Your task to perform on an android device: Search for seafood restaurants on Google Maps Image 0: 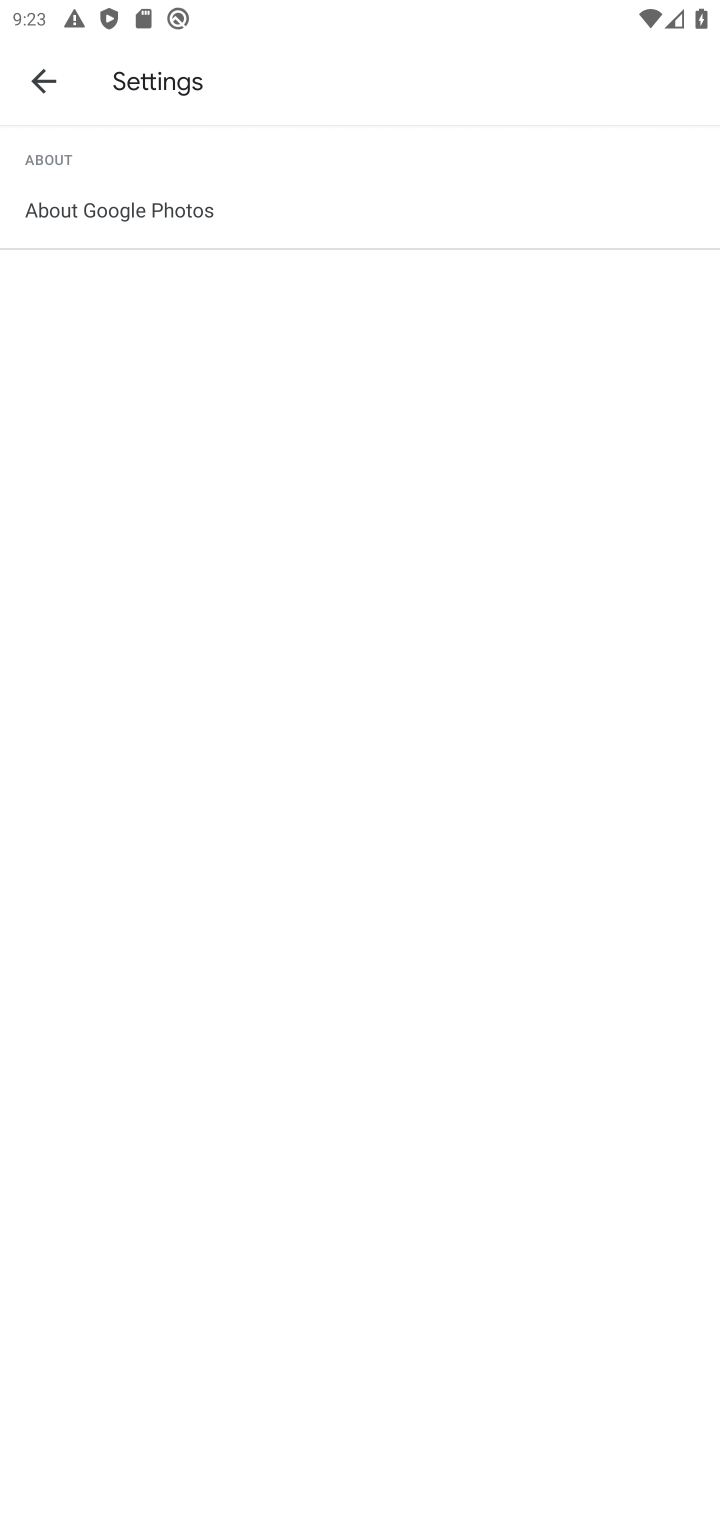
Step 0: press home button
Your task to perform on an android device: Search for seafood restaurants on Google Maps Image 1: 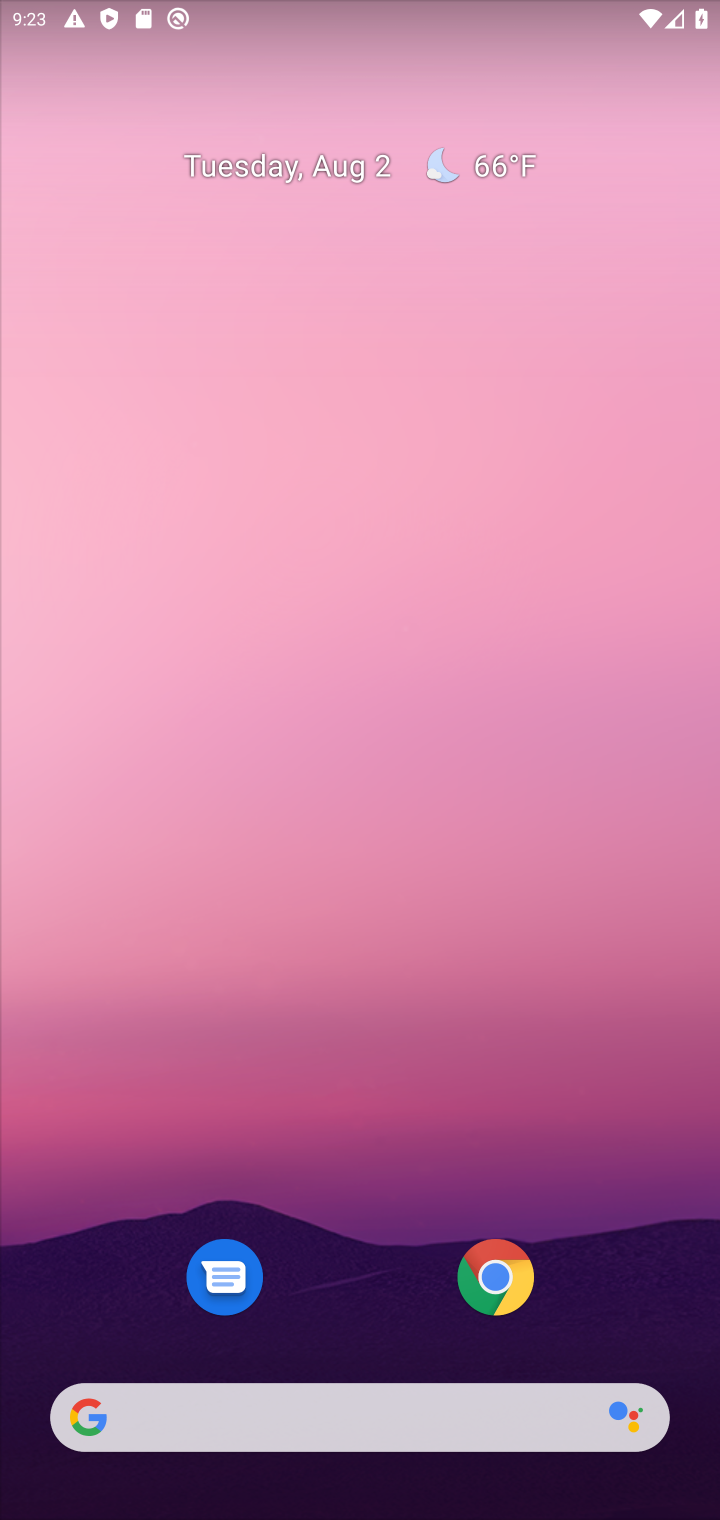
Step 1: drag from (421, 1097) to (565, 415)
Your task to perform on an android device: Search for seafood restaurants on Google Maps Image 2: 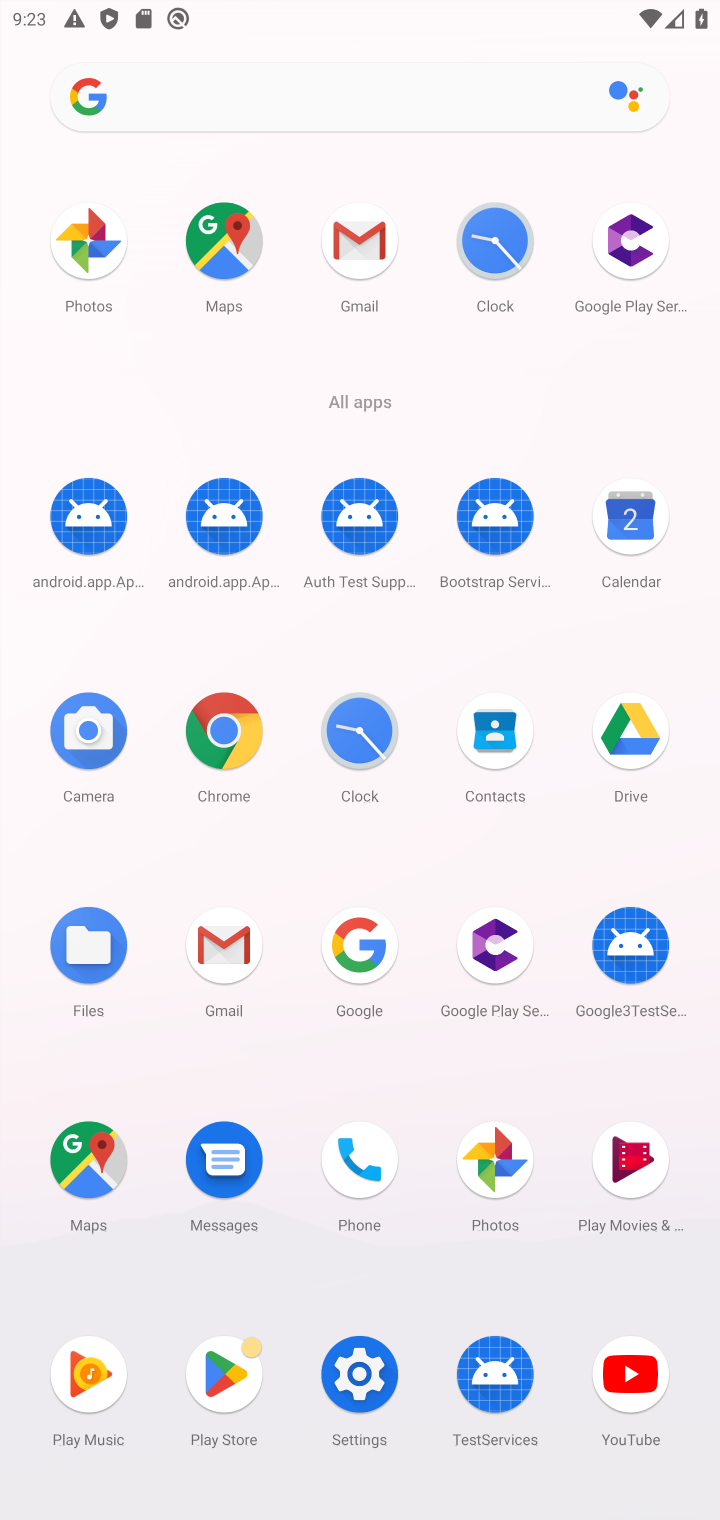
Step 2: click (215, 241)
Your task to perform on an android device: Search for seafood restaurants on Google Maps Image 3: 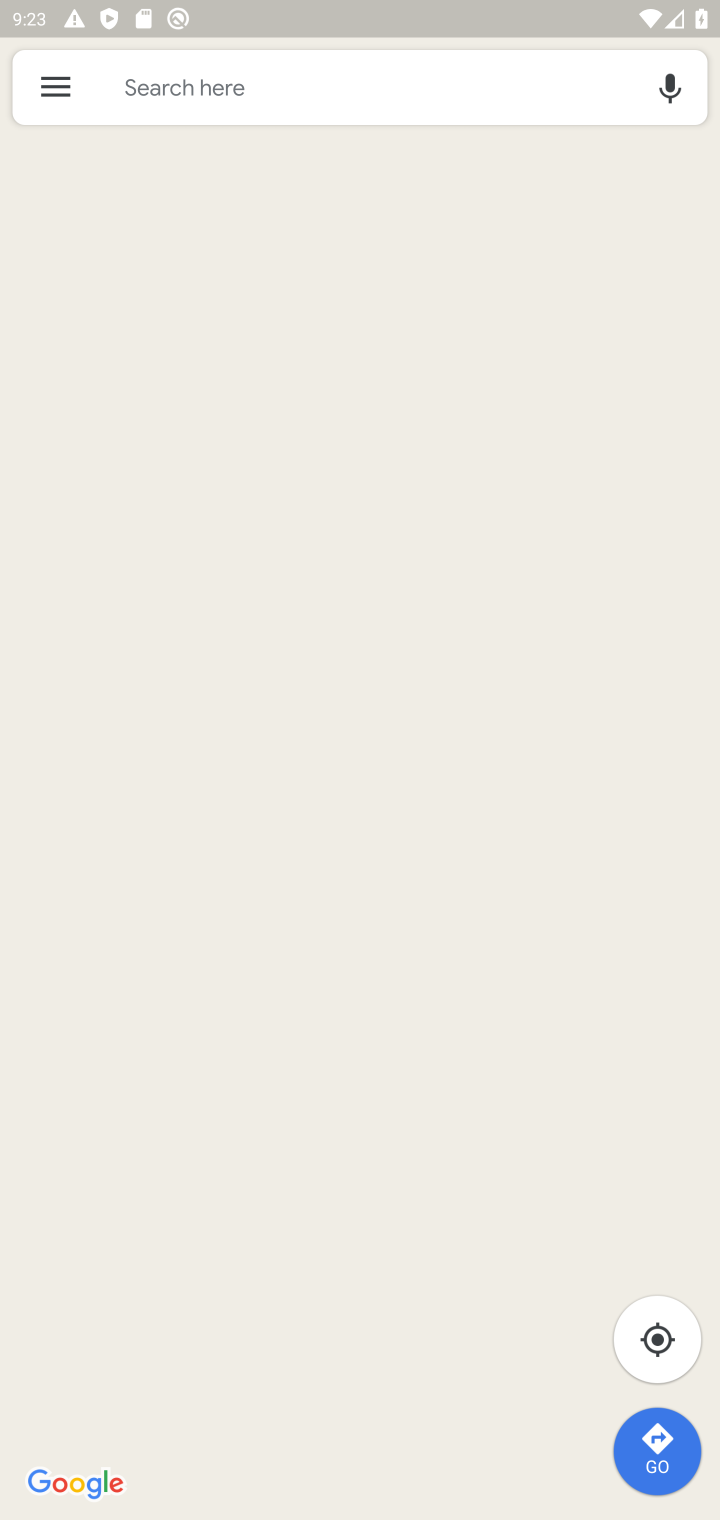
Step 3: click (215, 241)
Your task to perform on an android device: Search for seafood restaurants on Google Maps Image 4: 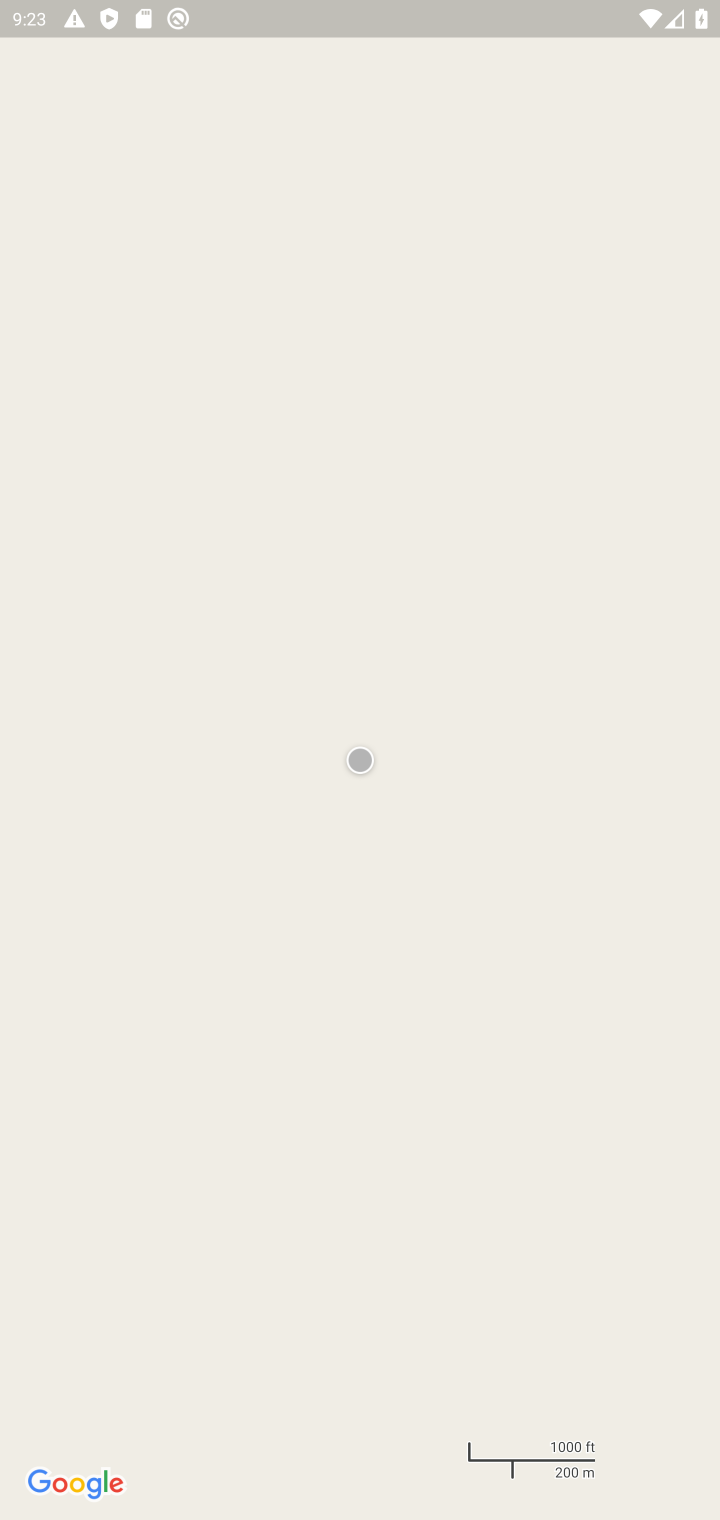
Step 4: click (218, 88)
Your task to perform on an android device: Search for seafood restaurants on Google Maps Image 5: 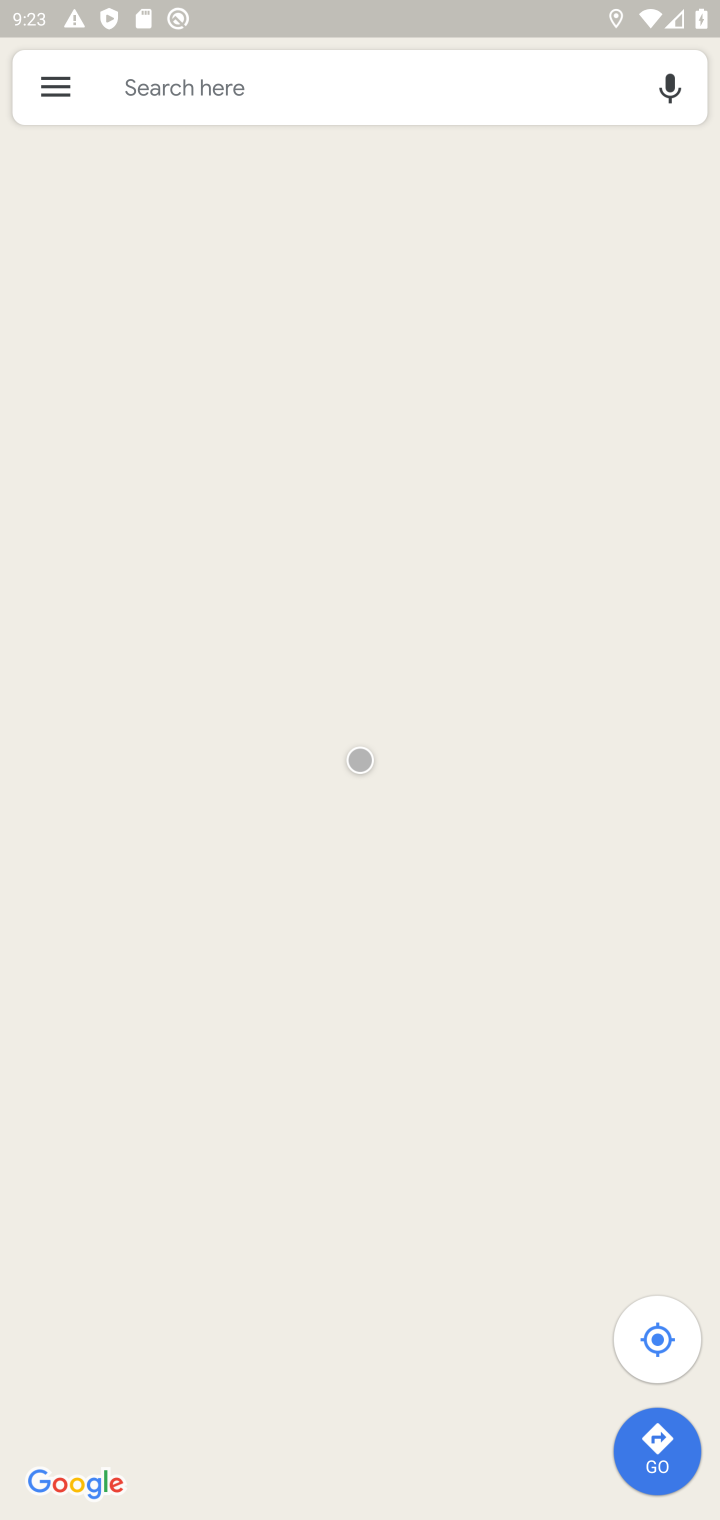
Step 5: click (218, 88)
Your task to perform on an android device: Search for seafood restaurants on Google Maps Image 6: 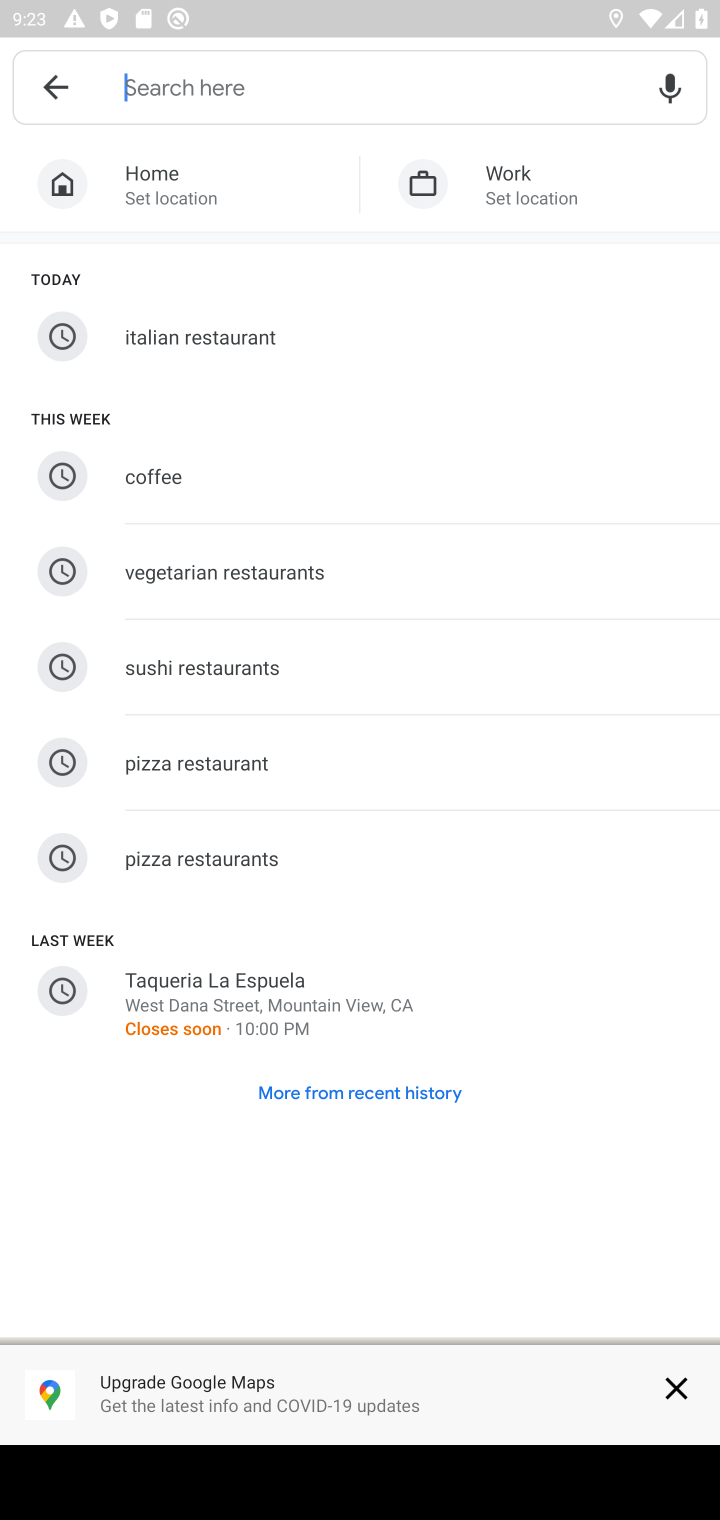
Step 6: type " seafood restaurants "
Your task to perform on an android device: Search for seafood restaurants on Google Maps Image 7: 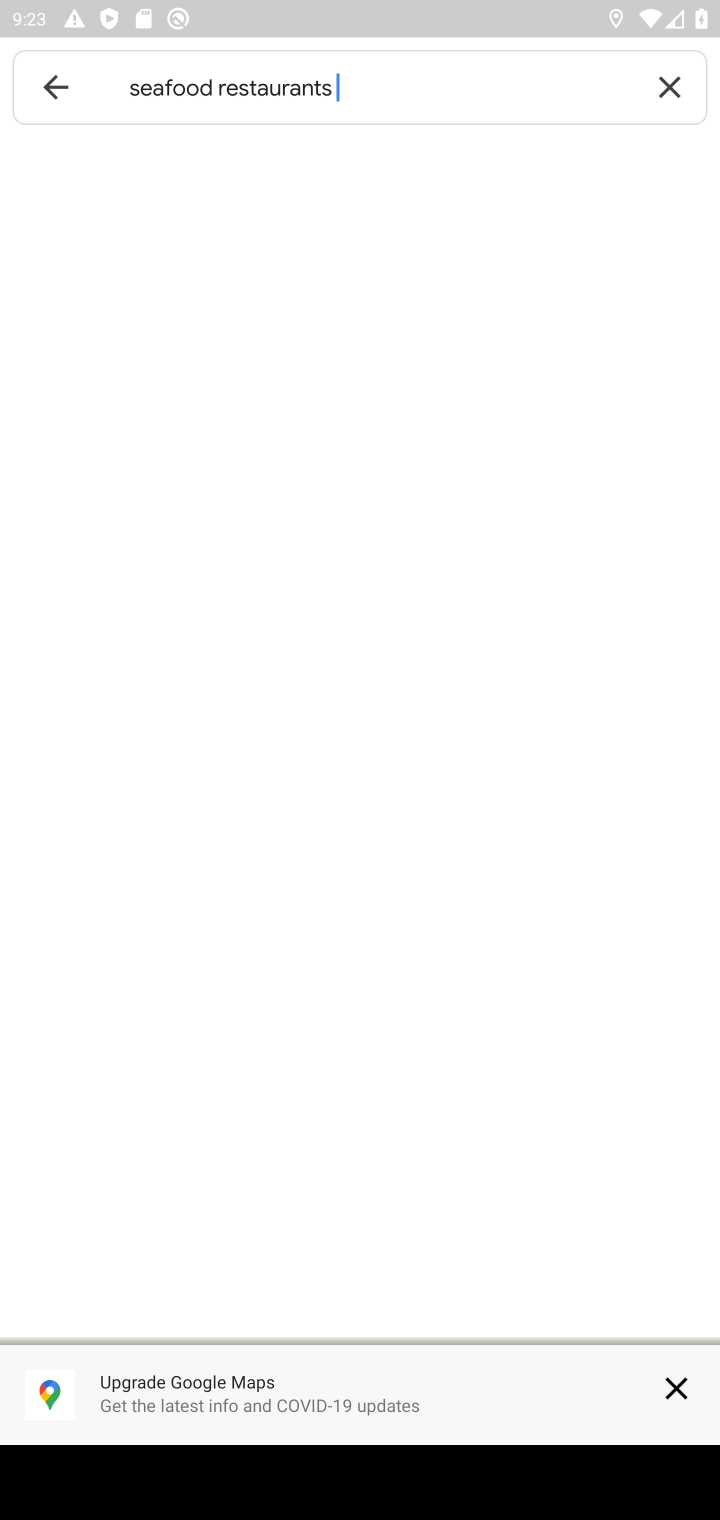
Step 7: press enter
Your task to perform on an android device: Search for seafood restaurants on Google Maps Image 8: 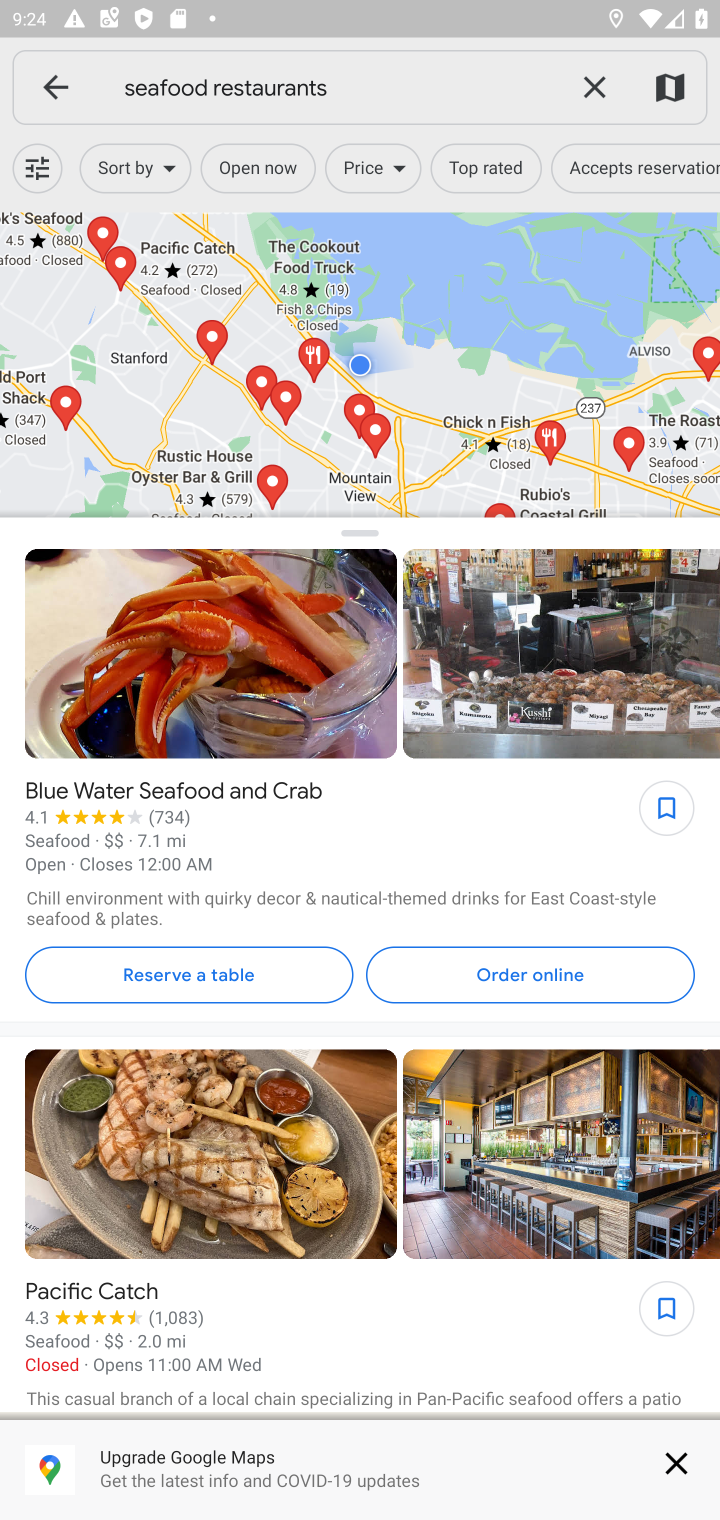
Step 8: task complete